Your task to perform on an android device: read, delete, or share a saved page in the chrome app Image 0: 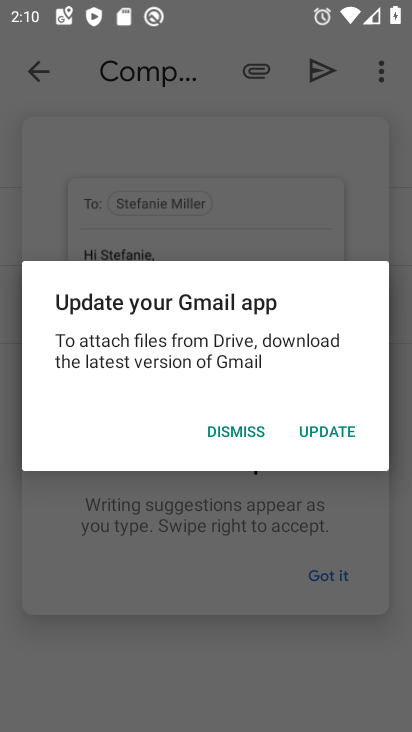
Step 0: press home button
Your task to perform on an android device: read, delete, or share a saved page in the chrome app Image 1: 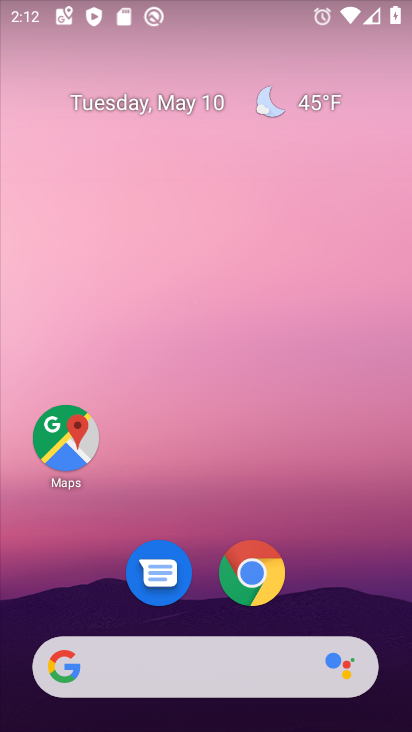
Step 1: click (258, 571)
Your task to perform on an android device: read, delete, or share a saved page in the chrome app Image 2: 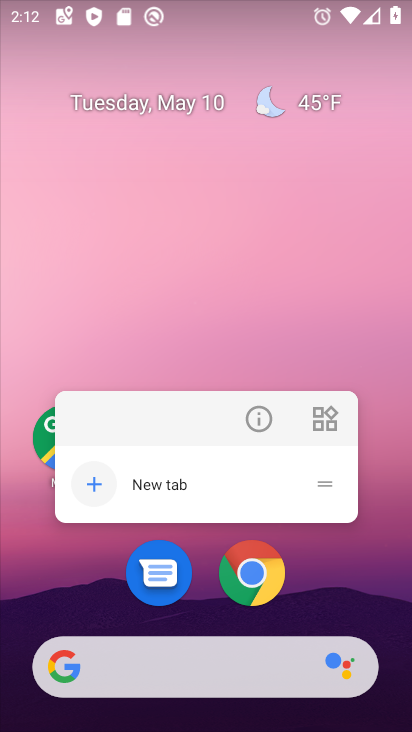
Step 2: click (237, 584)
Your task to perform on an android device: read, delete, or share a saved page in the chrome app Image 3: 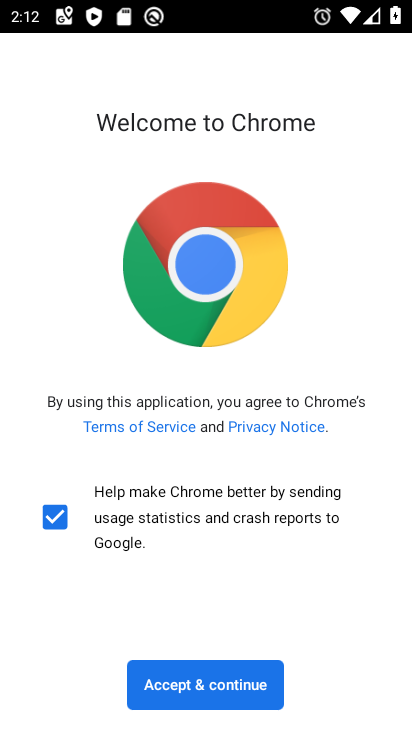
Step 3: click (229, 683)
Your task to perform on an android device: read, delete, or share a saved page in the chrome app Image 4: 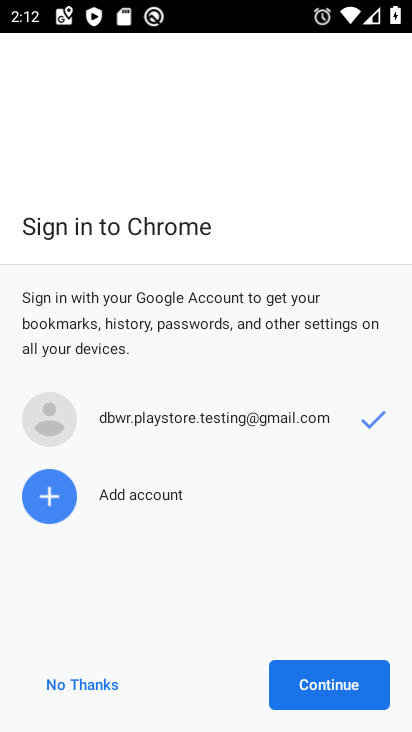
Step 4: click (292, 691)
Your task to perform on an android device: read, delete, or share a saved page in the chrome app Image 5: 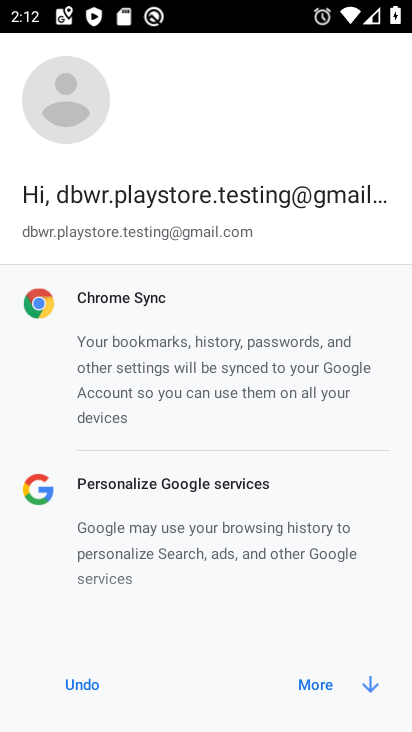
Step 5: click (312, 686)
Your task to perform on an android device: read, delete, or share a saved page in the chrome app Image 6: 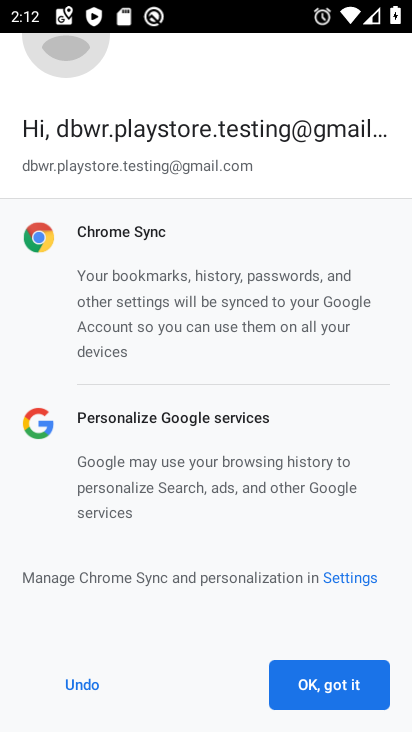
Step 6: click (312, 686)
Your task to perform on an android device: read, delete, or share a saved page in the chrome app Image 7: 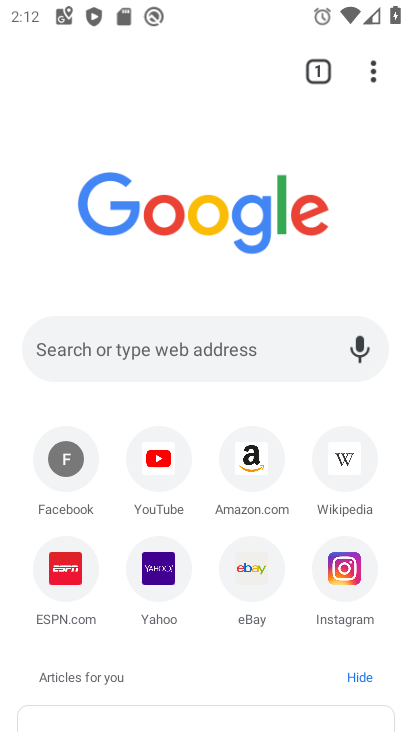
Step 7: click (364, 75)
Your task to perform on an android device: read, delete, or share a saved page in the chrome app Image 8: 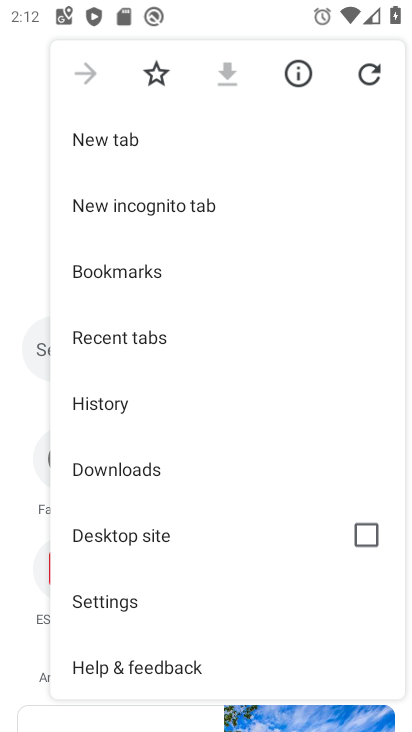
Step 8: click (137, 465)
Your task to perform on an android device: read, delete, or share a saved page in the chrome app Image 9: 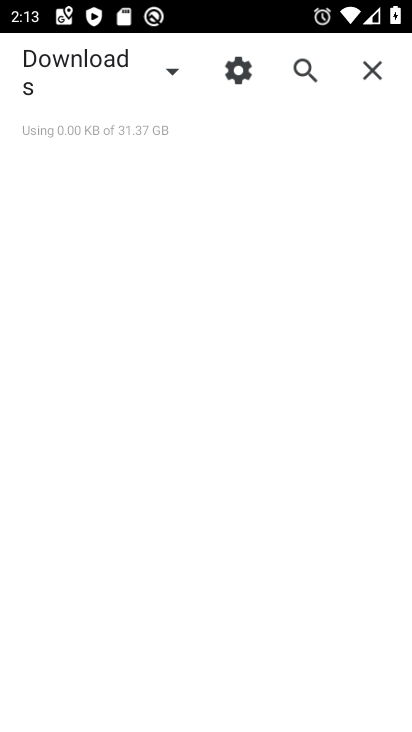
Step 9: task complete